Your task to perform on an android device: Turn off the flashlight Image 0: 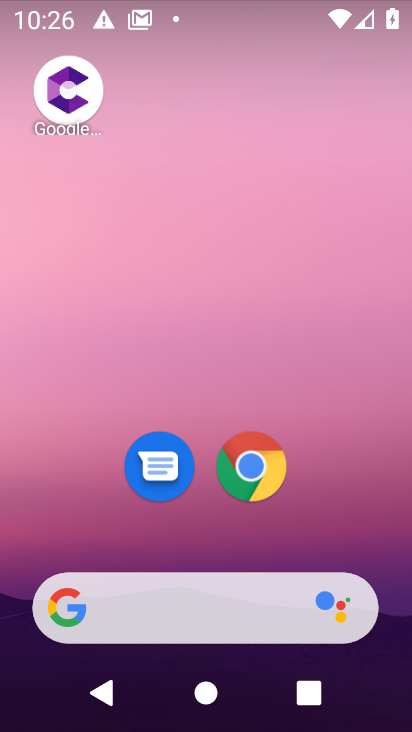
Step 0: drag from (125, 2) to (168, 665)
Your task to perform on an android device: Turn off the flashlight Image 1: 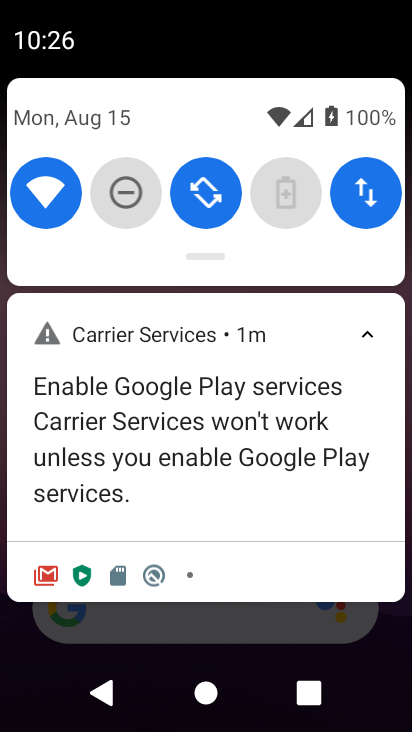
Step 1: task complete